Your task to perform on an android device: Is it going to rain this weekend? Image 0: 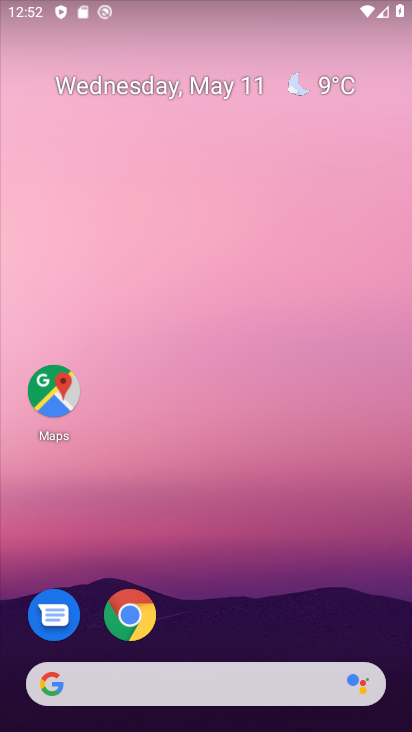
Step 0: drag from (278, 325) to (330, 14)
Your task to perform on an android device: Is it going to rain this weekend? Image 1: 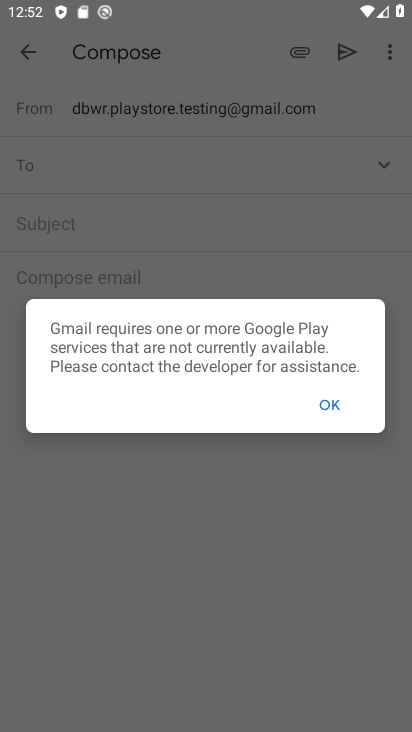
Step 1: click (334, 395)
Your task to perform on an android device: Is it going to rain this weekend? Image 2: 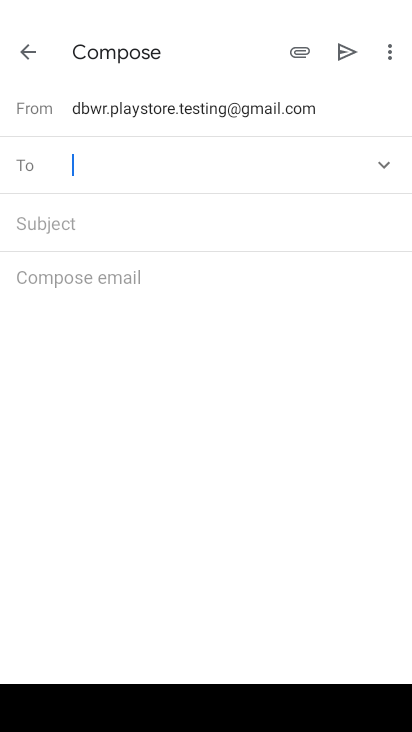
Step 2: press home button
Your task to perform on an android device: Is it going to rain this weekend? Image 3: 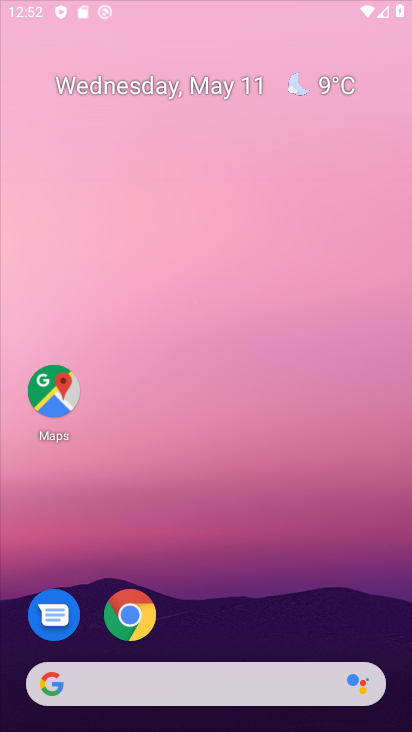
Step 3: drag from (167, 244) to (201, 76)
Your task to perform on an android device: Is it going to rain this weekend? Image 4: 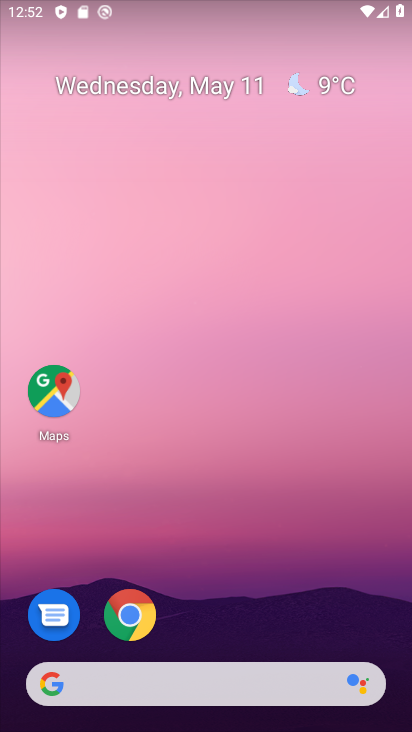
Step 4: drag from (240, 616) to (241, 72)
Your task to perform on an android device: Is it going to rain this weekend? Image 5: 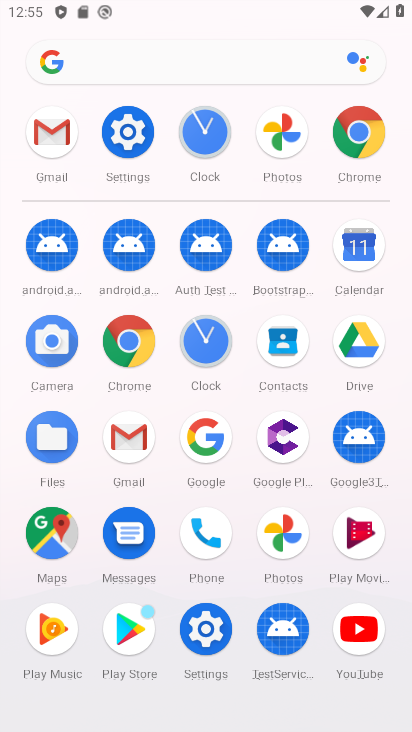
Step 5: click (146, 64)
Your task to perform on an android device: Is it going to rain this weekend? Image 6: 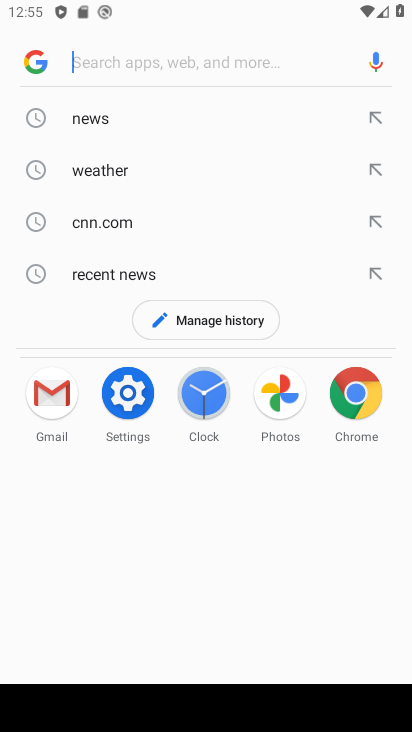
Step 6: click (113, 177)
Your task to perform on an android device: Is it going to rain this weekend? Image 7: 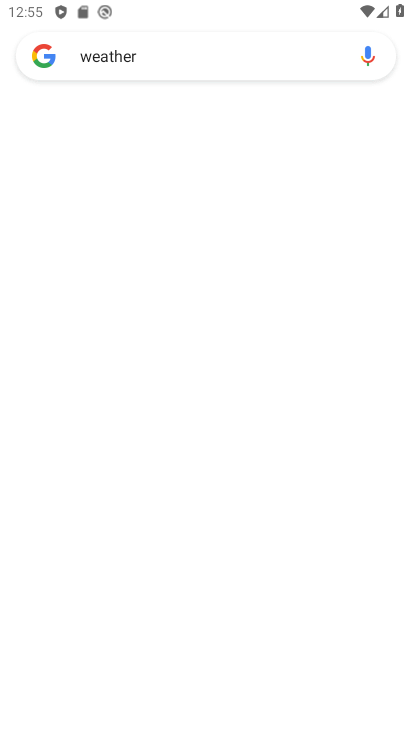
Step 7: task complete